Your task to perform on an android device: open sync settings in chrome Image 0: 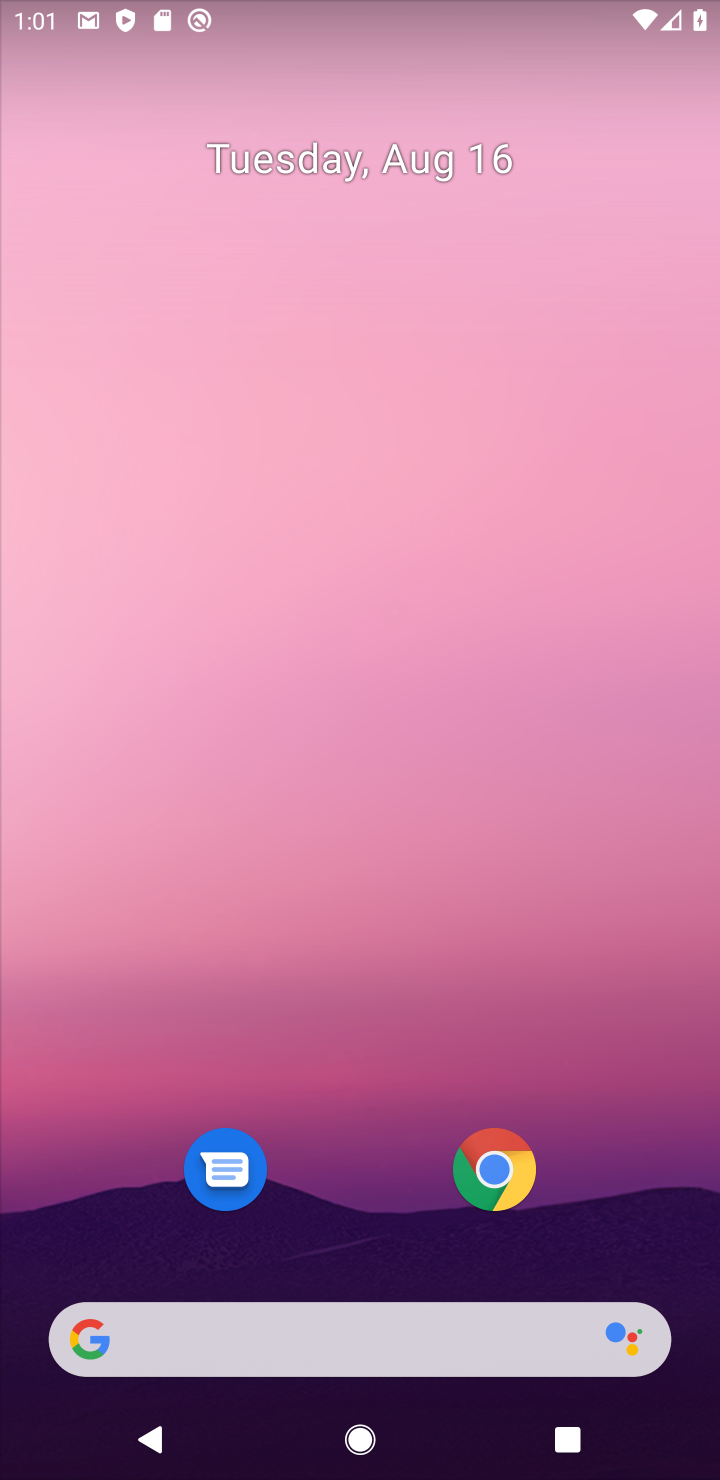
Step 0: click (479, 1154)
Your task to perform on an android device: open sync settings in chrome Image 1: 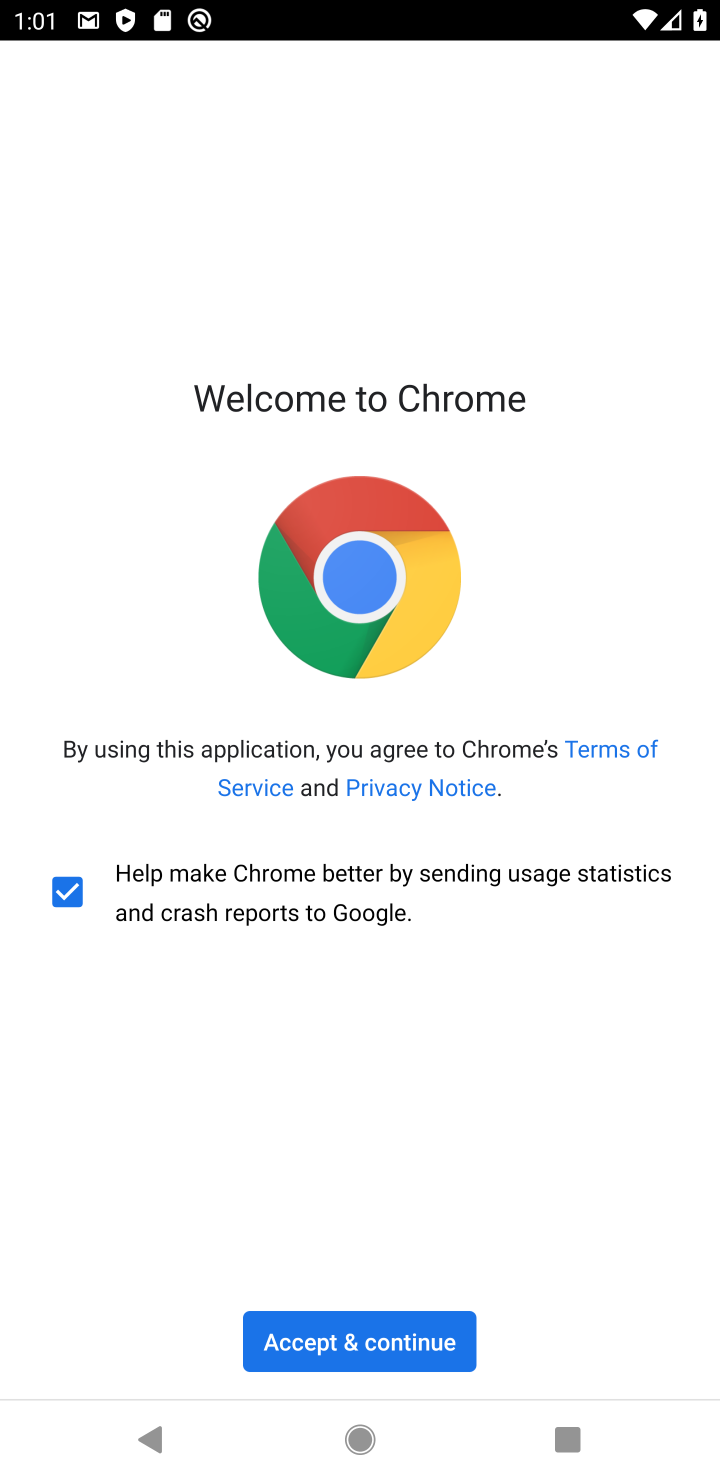
Step 1: click (436, 1312)
Your task to perform on an android device: open sync settings in chrome Image 2: 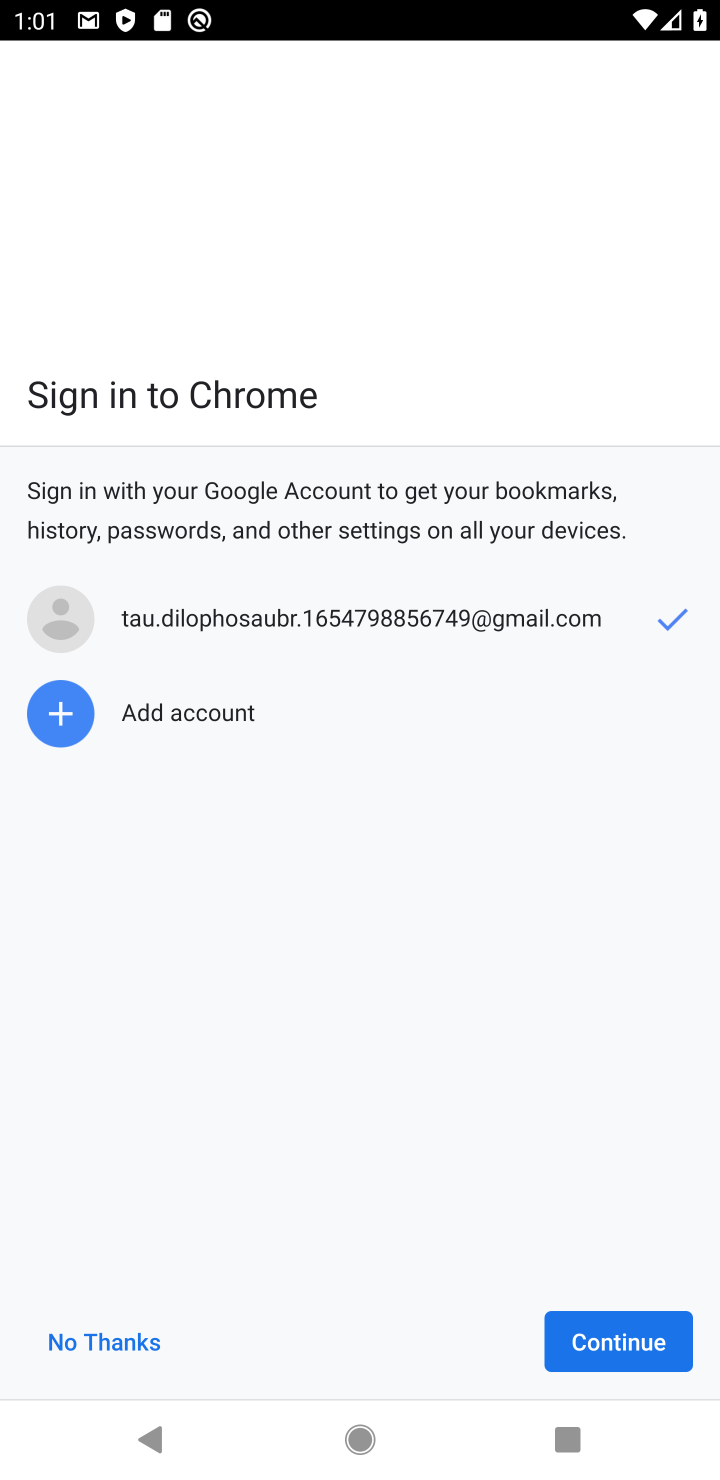
Step 2: click (658, 1324)
Your task to perform on an android device: open sync settings in chrome Image 3: 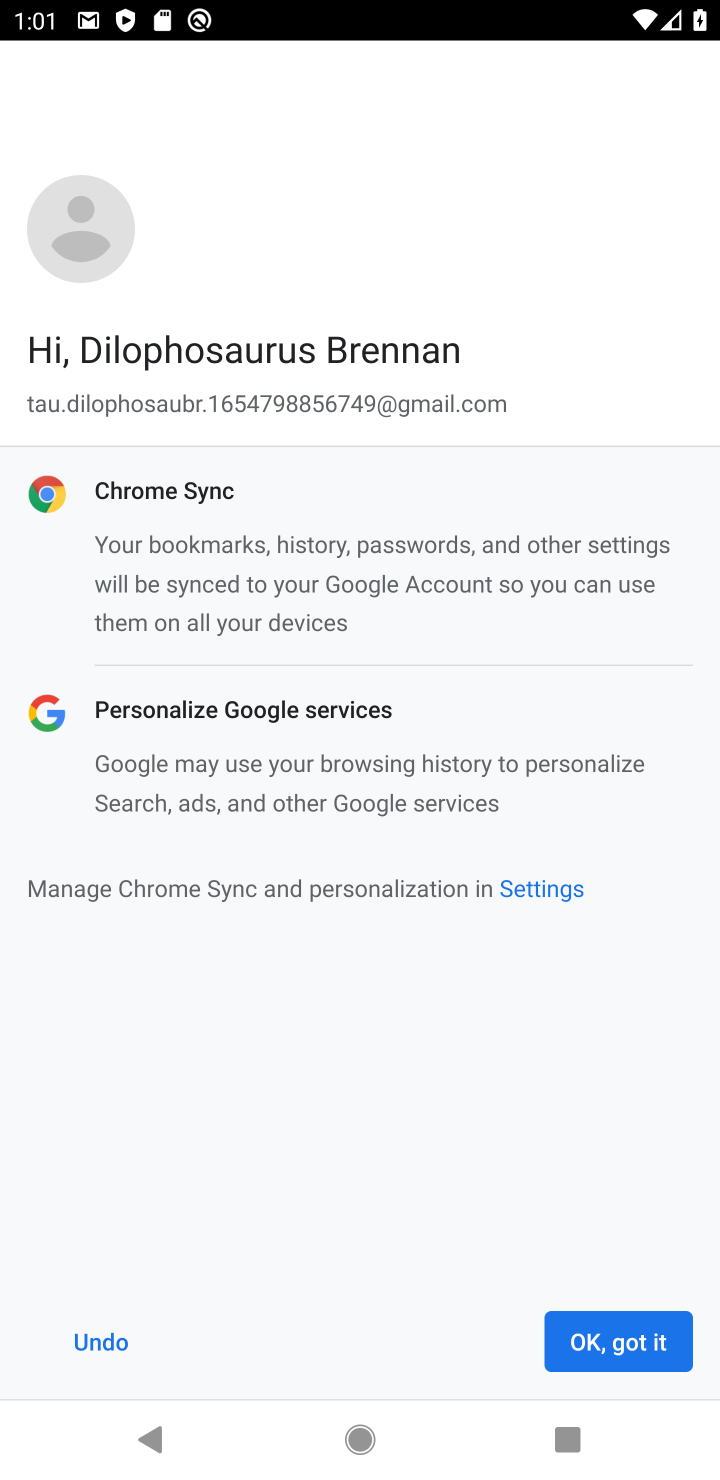
Step 3: click (658, 1324)
Your task to perform on an android device: open sync settings in chrome Image 4: 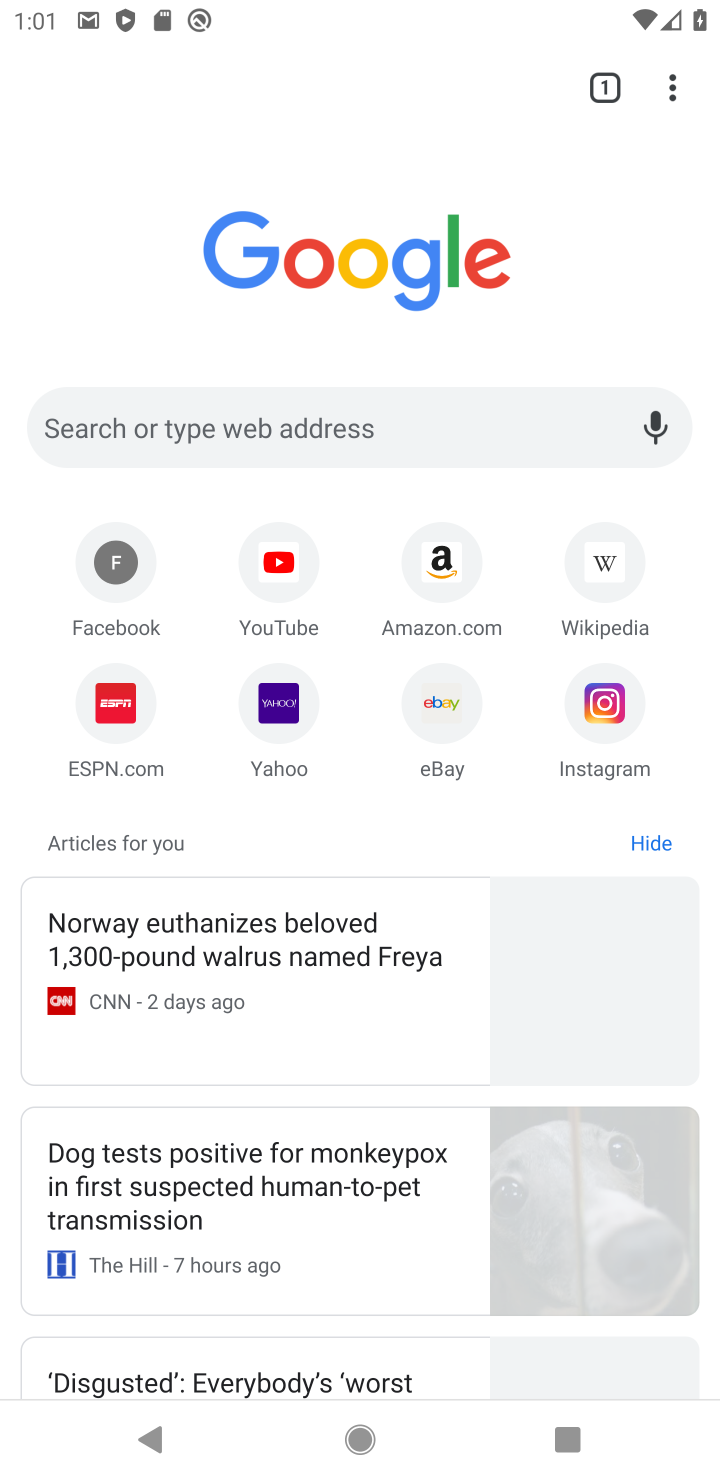
Step 4: click (684, 79)
Your task to perform on an android device: open sync settings in chrome Image 5: 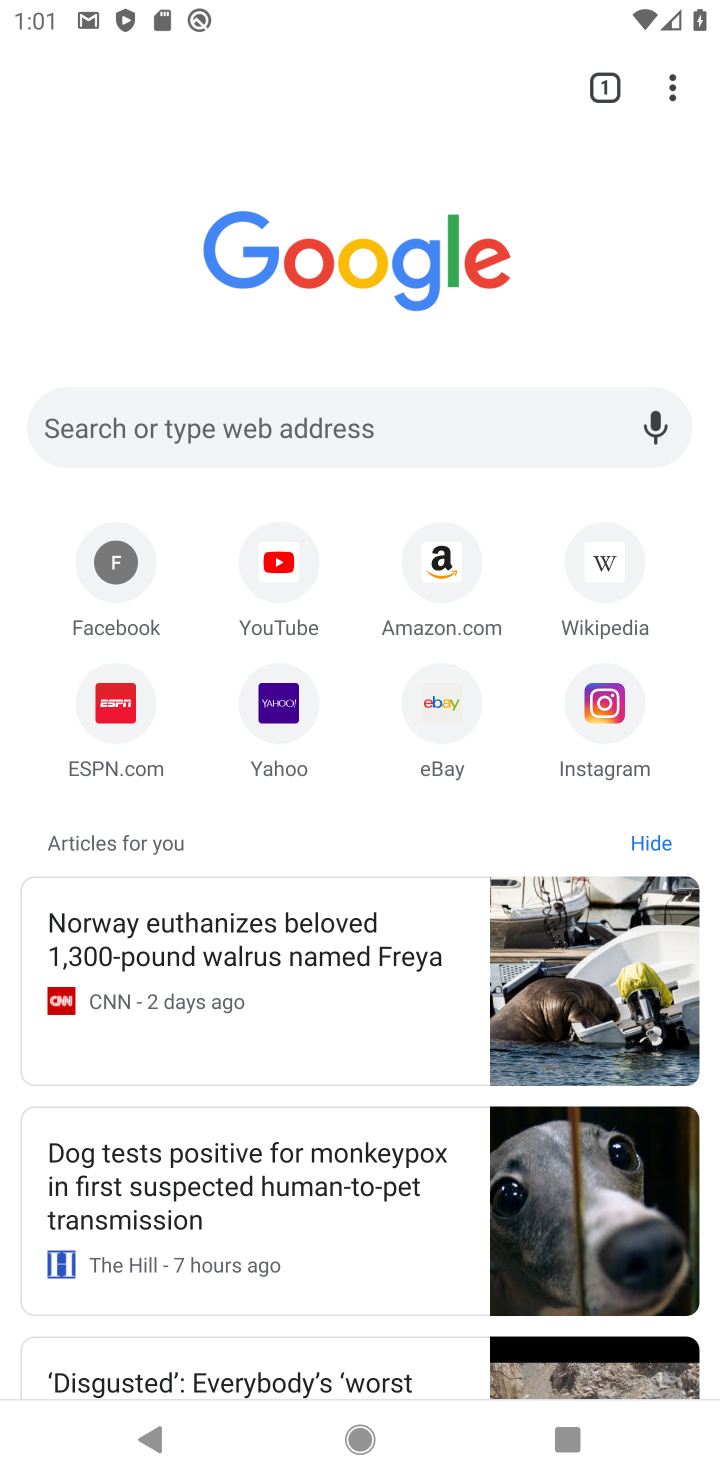
Step 5: click (684, 86)
Your task to perform on an android device: open sync settings in chrome Image 6: 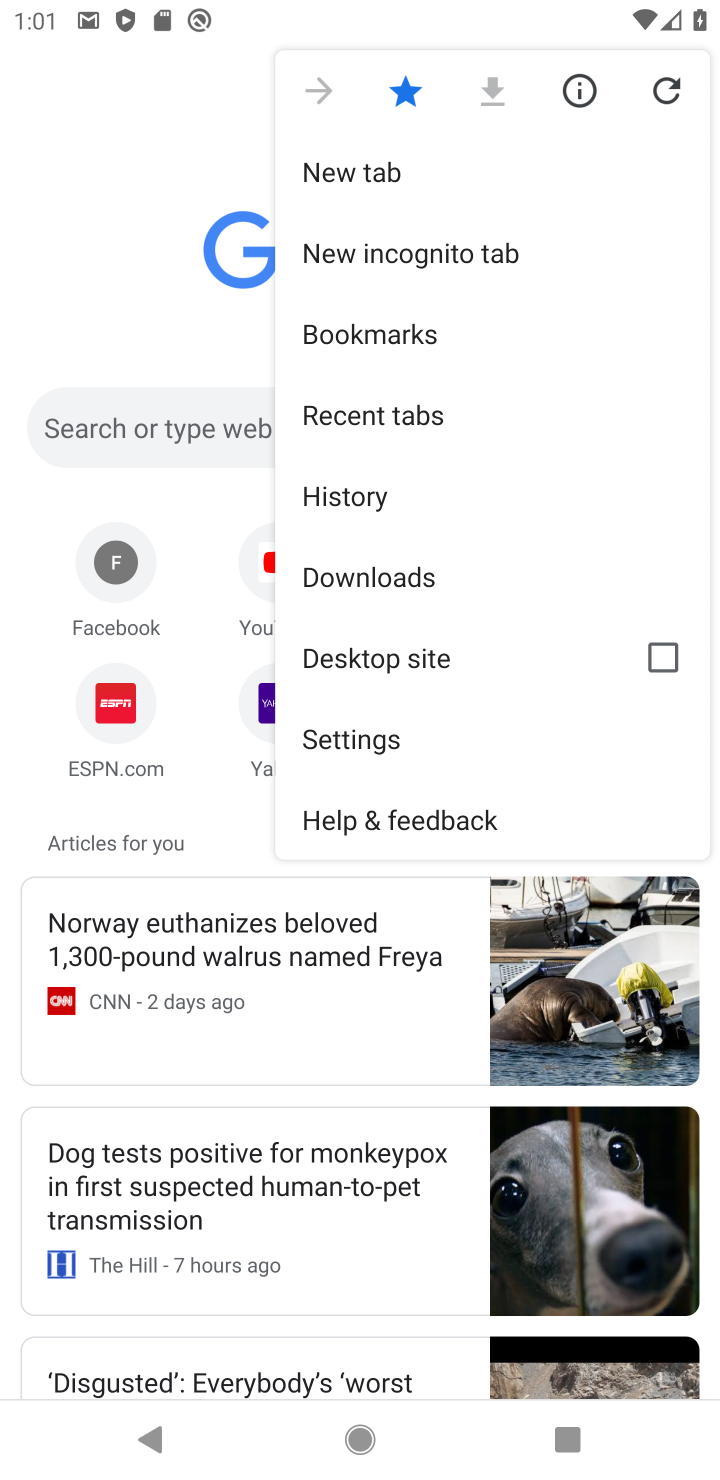
Step 6: click (354, 753)
Your task to perform on an android device: open sync settings in chrome Image 7: 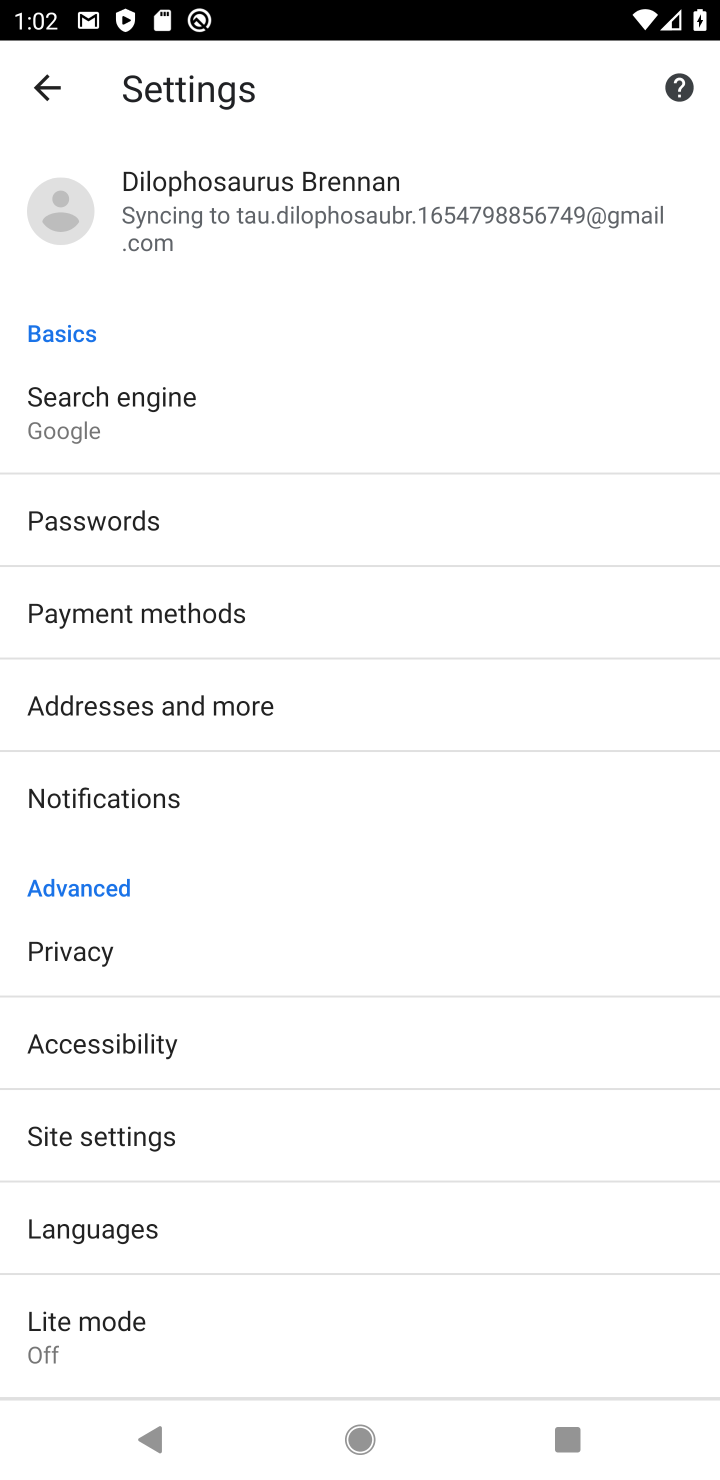
Step 7: click (142, 1130)
Your task to perform on an android device: open sync settings in chrome Image 8: 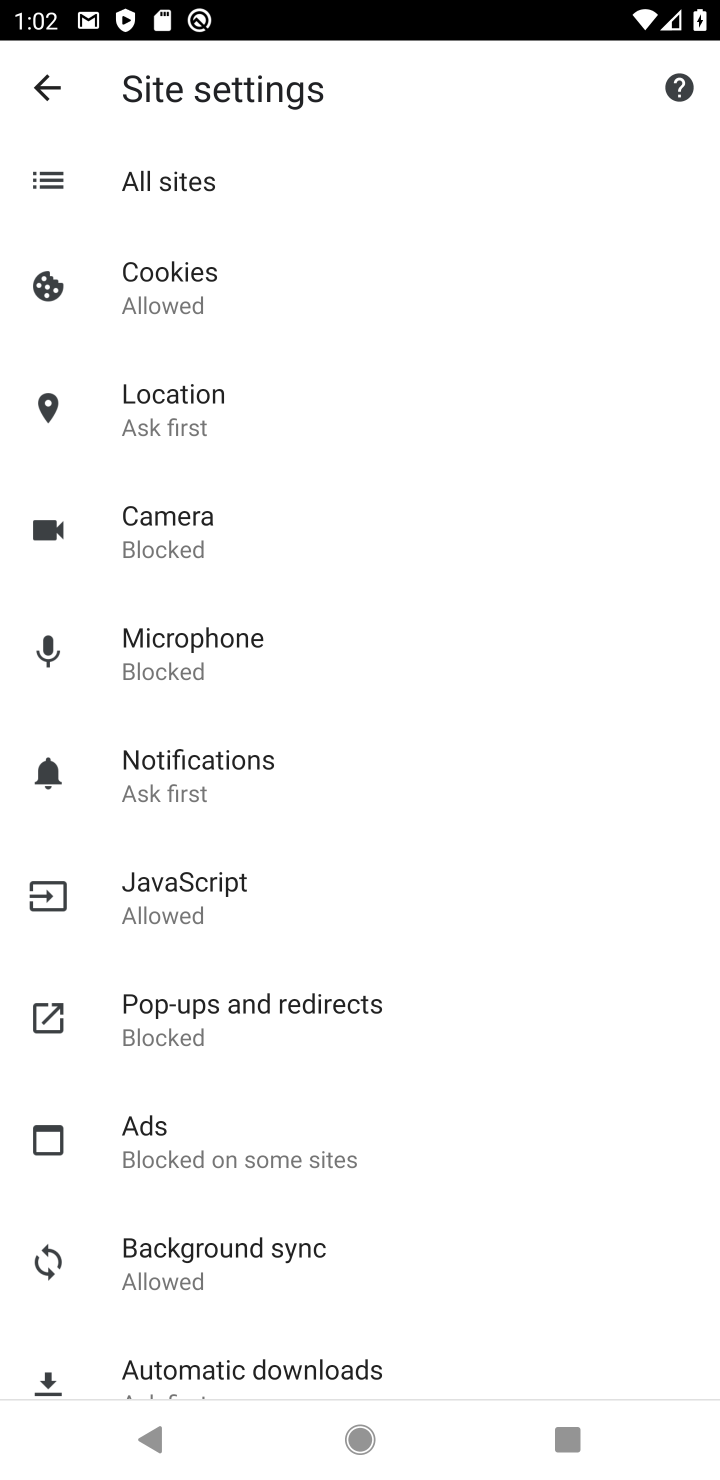
Step 8: click (215, 1252)
Your task to perform on an android device: open sync settings in chrome Image 9: 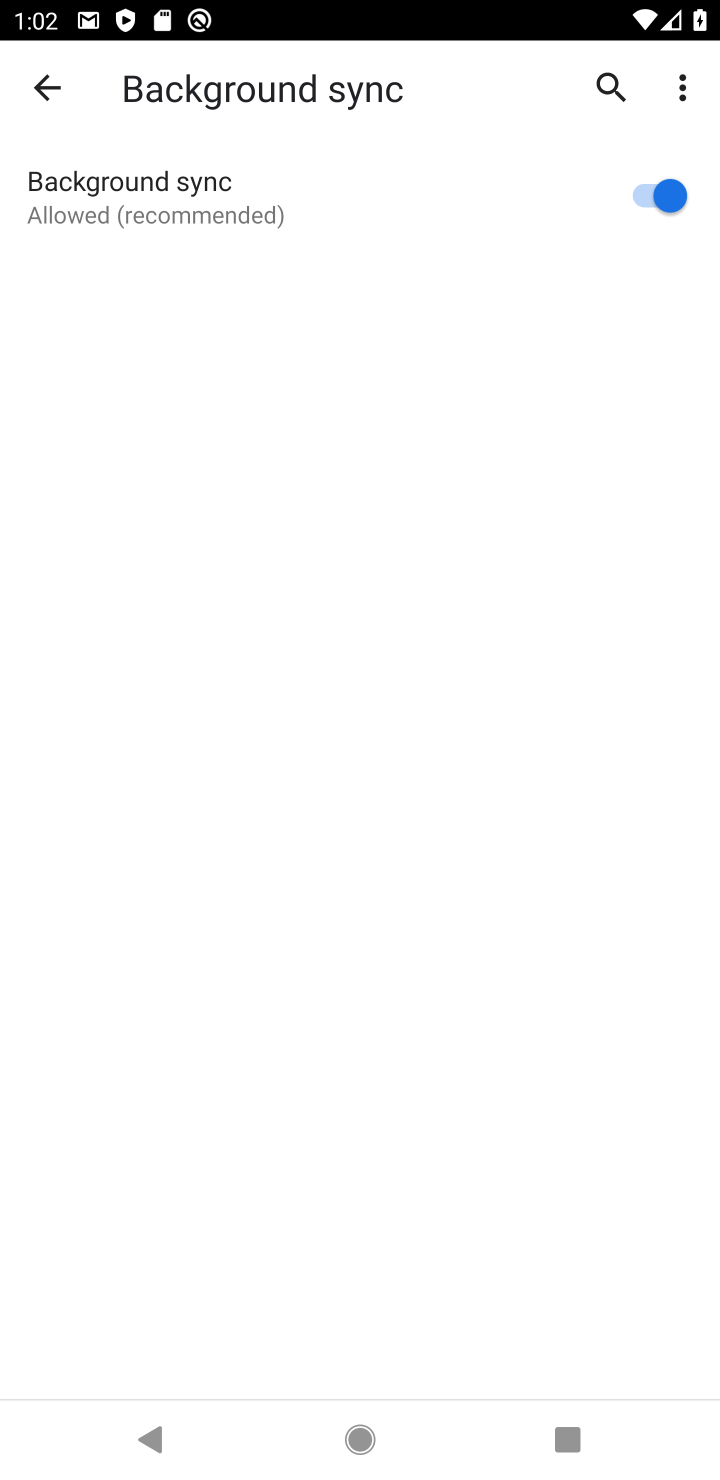
Step 9: task complete